Your task to perform on an android device: Go to notification settings Image 0: 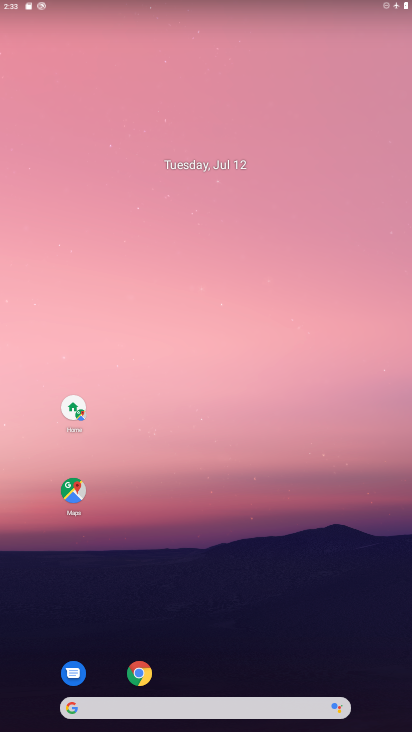
Step 0: drag from (297, 653) to (294, 202)
Your task to perform on an android device: Go to notification settings Image 1: 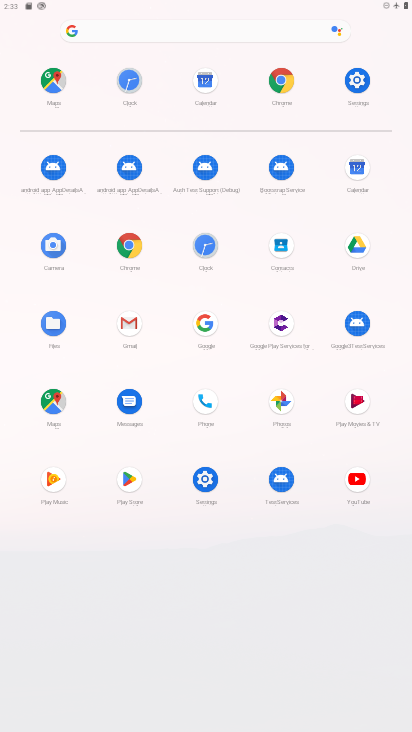
Step 1: click (354, 78)
Your task to perform on an android device: Go to notification settings Image 2: 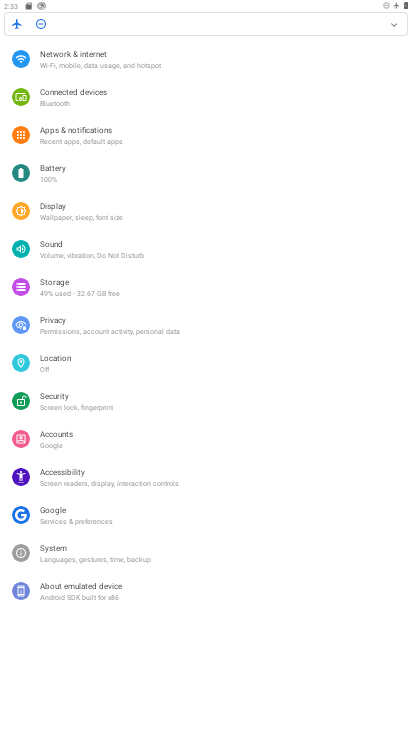
Step 2: click (80, 136)
Your task to perform on an android device: Go to notification settings Image 3: 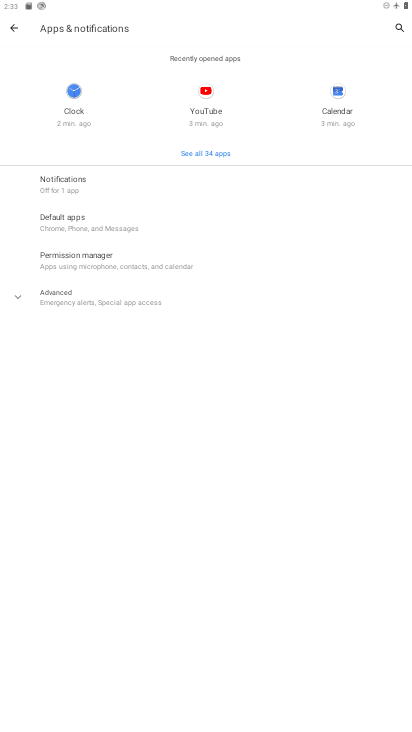
Step 3: click (62, 177)
Your task to perform on an android device: Go to notification settings Image 4: 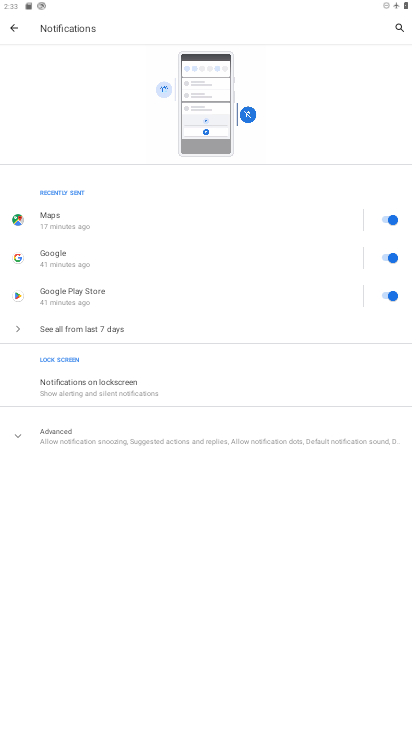
Step 4: click (136, 384)
Your task to perform on an android device: Go to notification settings Image 5: 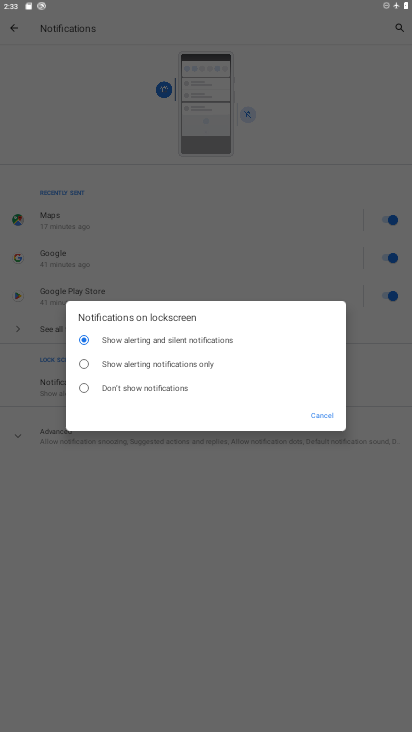
Step 5: click (76, 44)
Your task to perform on an android device: Go to notification settings Image 6: 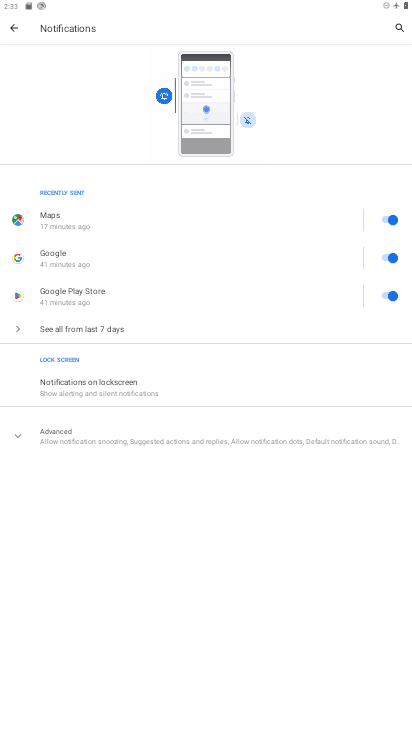
Step 6: task complete